Your task to perform on an android device: empty trash in google photos Image 0: 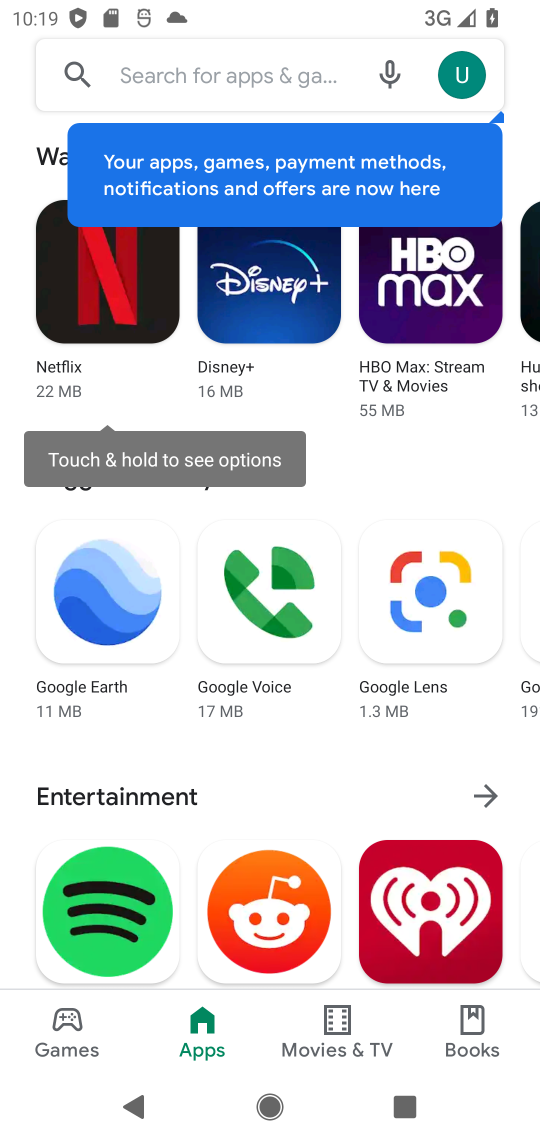
Step 0: press home button
Your task to perform on an android device: empty trash in google photos Image 1: 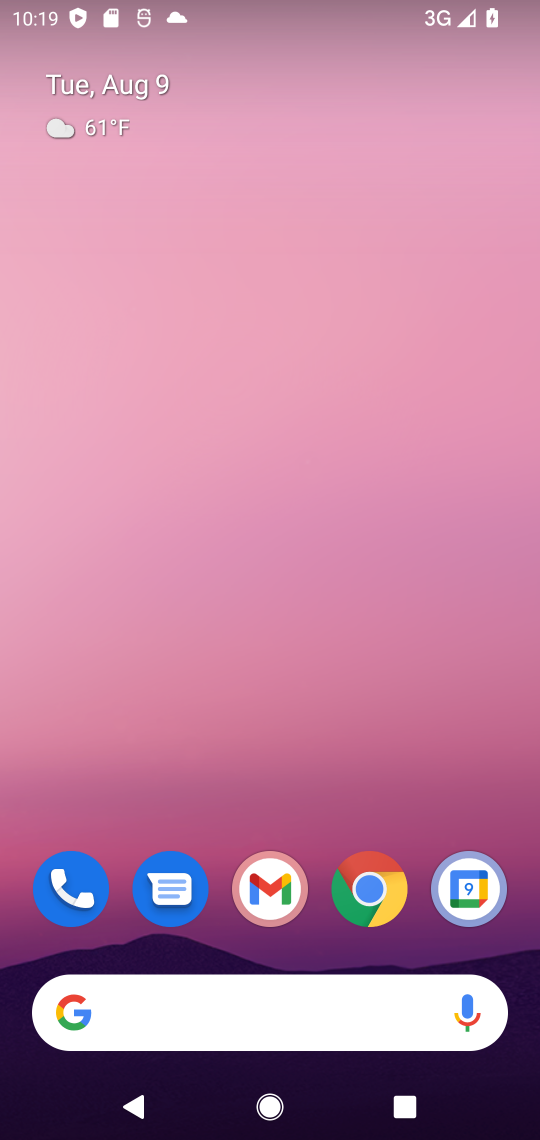
Step 1: drag from (294, 1011) to (362, 376)
Your task to perform on an android device: empty trash in google photos Image 2: 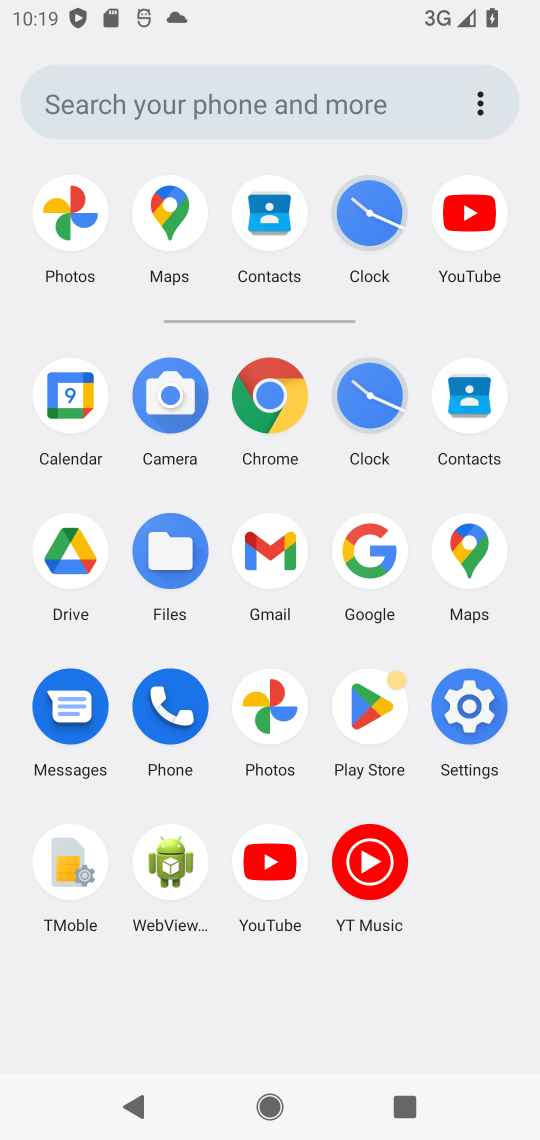
Step 2: click (270, 697)
Your task to perform on an android device: empty trash in google photos Image 3: 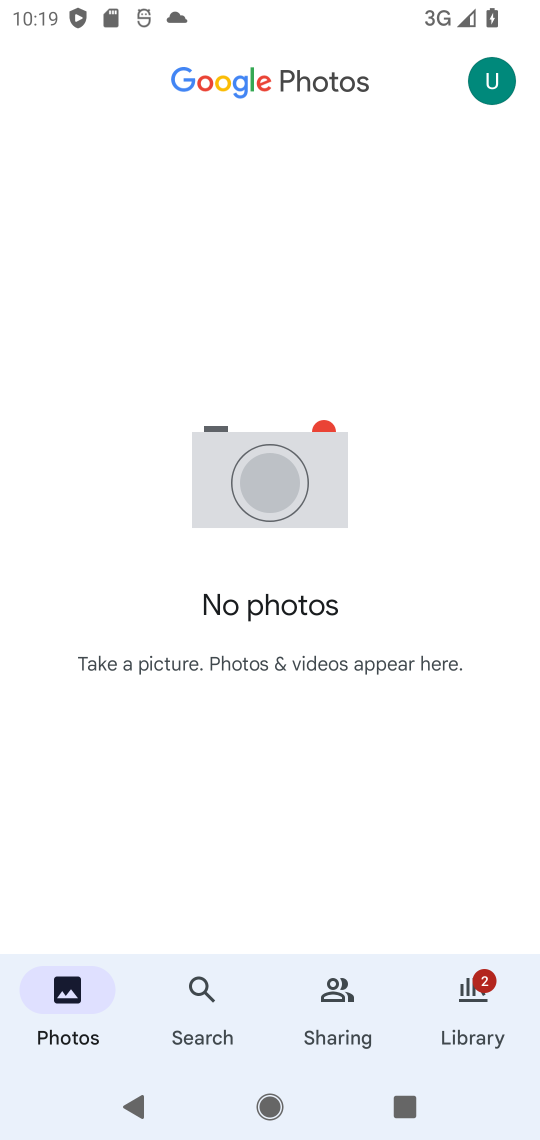
Step 3: click (493, 95)
Your task to perform on an android device: empty trash in google photos Image 4: 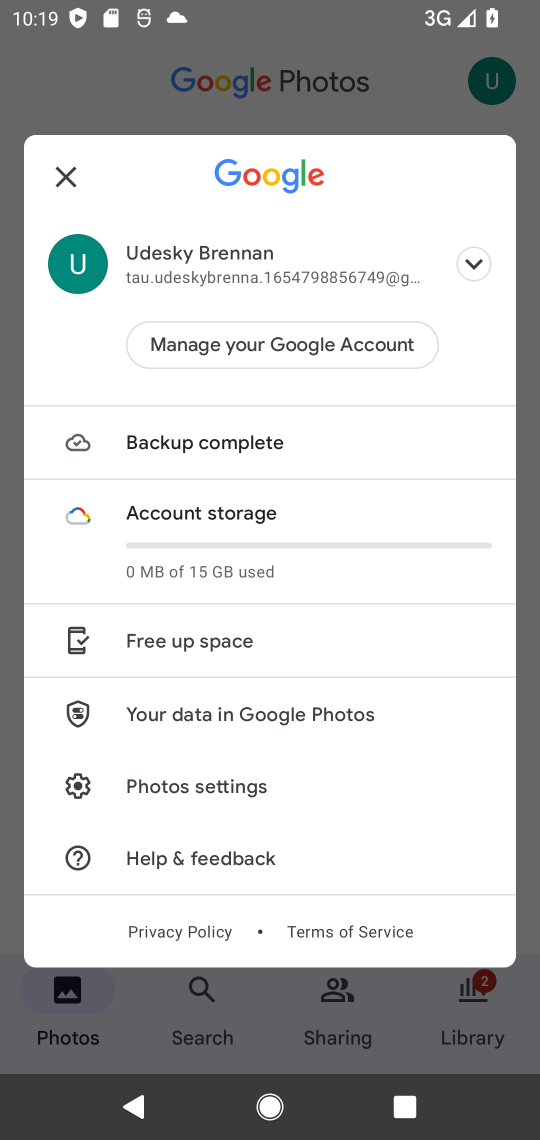
Step 4: task complete